Your task to perform on an android device: set default search engine in the chrome app Image 0: 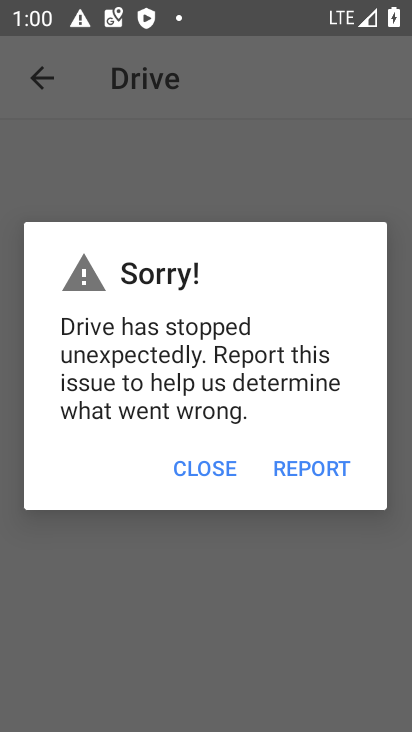
Step 0: press home button
Your task to perform on an android device: set default search engine in the chrome app Image 1: 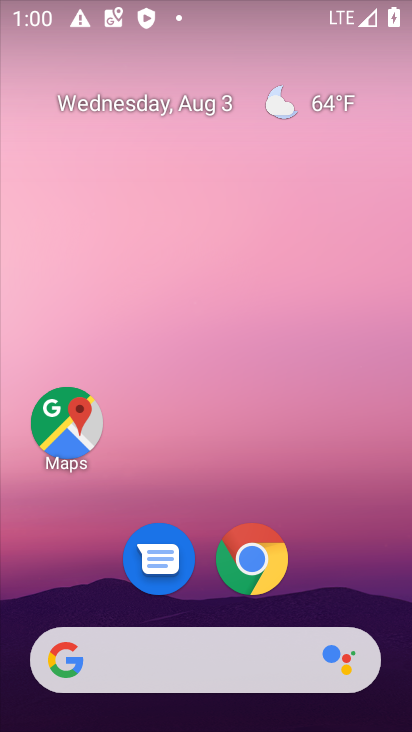
Step 1: drag from (203, 604) to (218, 109)
Your task to perform on an android device: set default search engine in the chrome app Image 2: 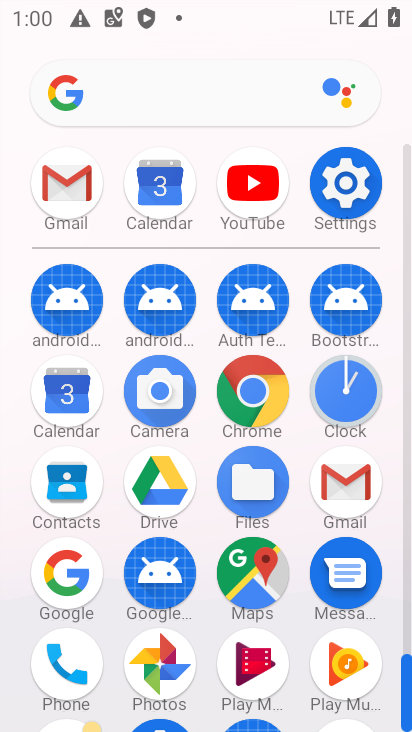
Step 2: click (260, 390)
Your task to perform on an android device: set default search engine in the chrome app Image 3: 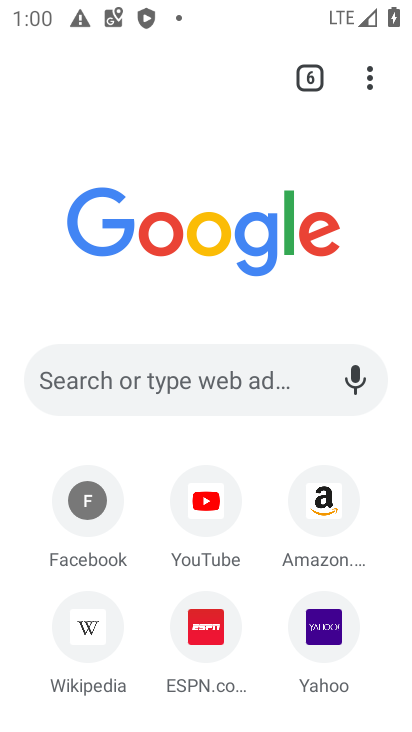
Step 3: click (370, 81)
Your task to perform on an android device: set default search engine in the chrome app Image 4: 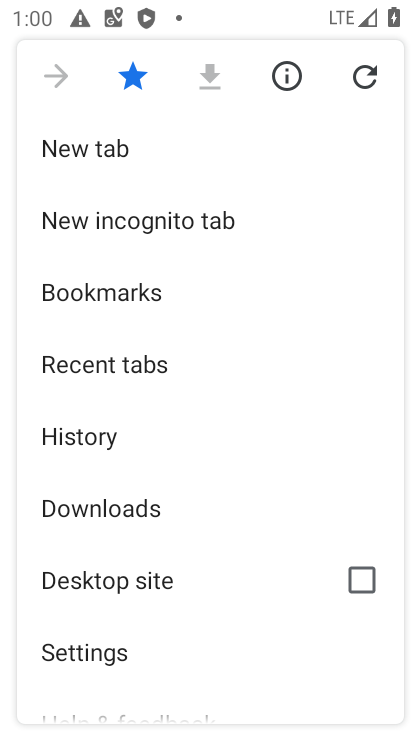
Step 4: drag from (100, 656) to (106, 155)
Your task to perform on an android device: set default search engine in the chrome app Image 5: 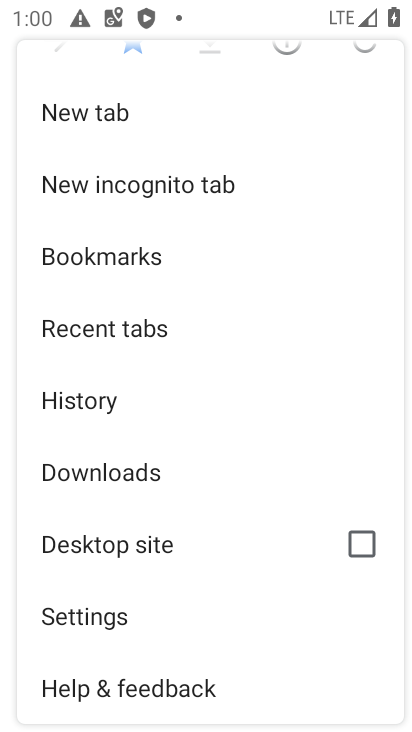
Step 5: click (94, 607)
Your task to perform on an android device: set default search engine in the chrome app Image 6: 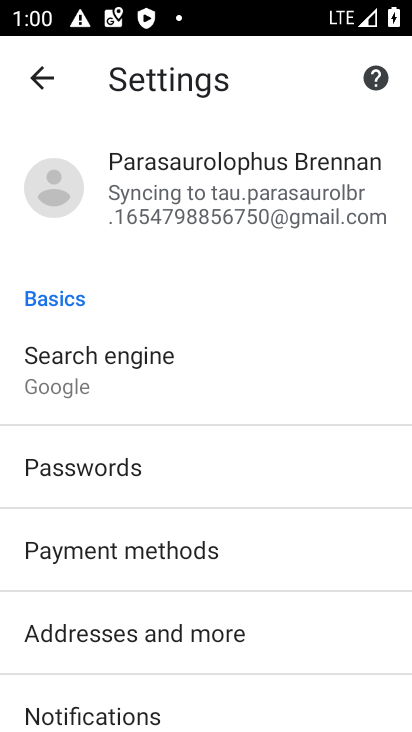
Step 6: drag from (99, 675) to (96, 227)
Your task to perform on an android device: set default search engine in the chrome app Image 7: 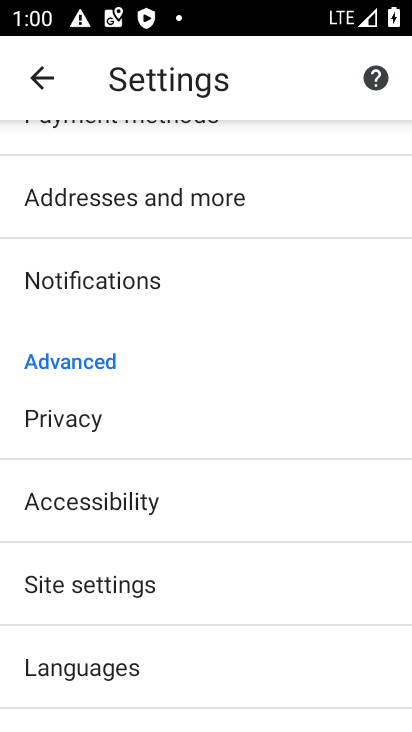
Step 7: drag from (142, 652) to (164, 313)
Your task to perform on an android device: set default search engine in the chrome app Image 8: 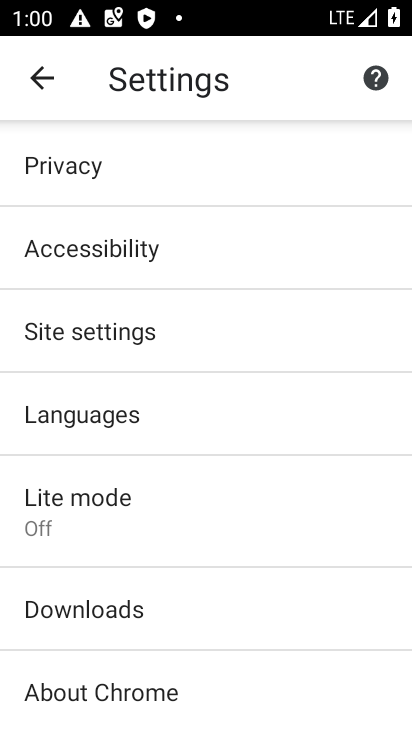
Step 8: drag from (172, 159) to (189, 568)
Your task to perform on an android device: set default search engine in the chrome app Image 9: 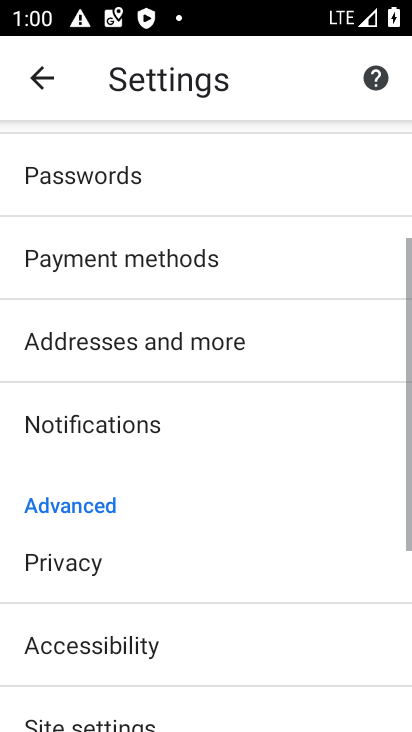
Step 9: drag from (175, 256) to (176, 522)
Your task to perform on an android device: set default search engine in the chrome app Image 10: 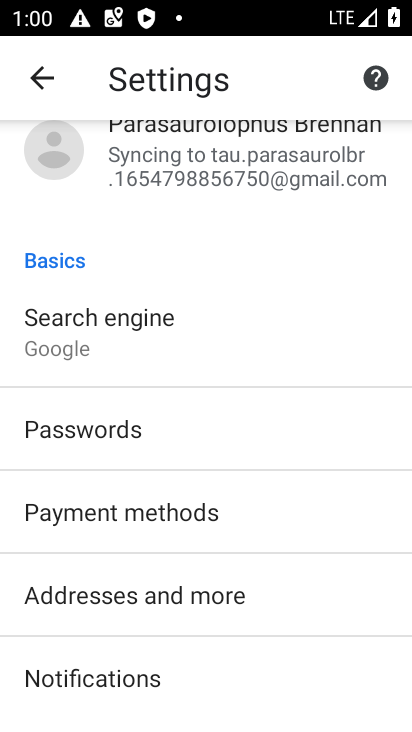
Step 10: click (68, 328)
Your task to perform on an android device: set default search engine in the chrome app Image 11: 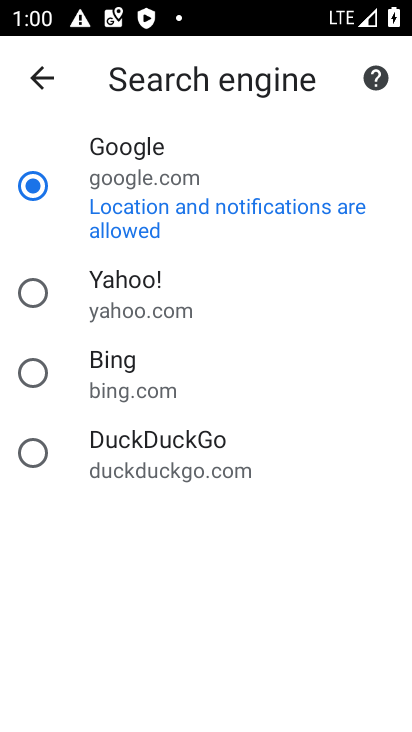
Step 11: click (43, 293)
Your task to perform on an android device: set default search engine in the chrome app Image 12: 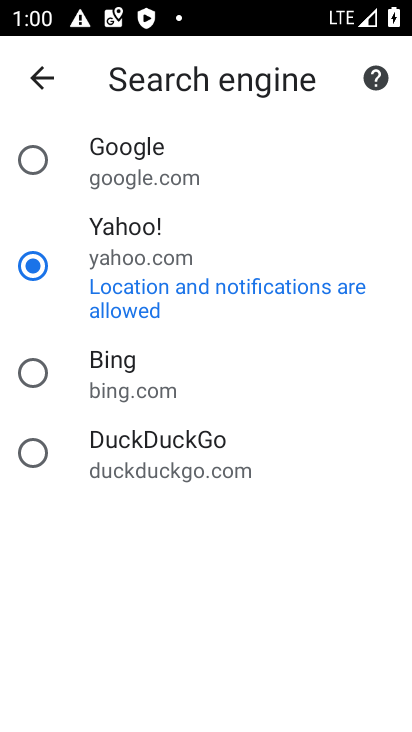
Step 12: task complete